Your task to perform on an android device: set the timer Image 0: 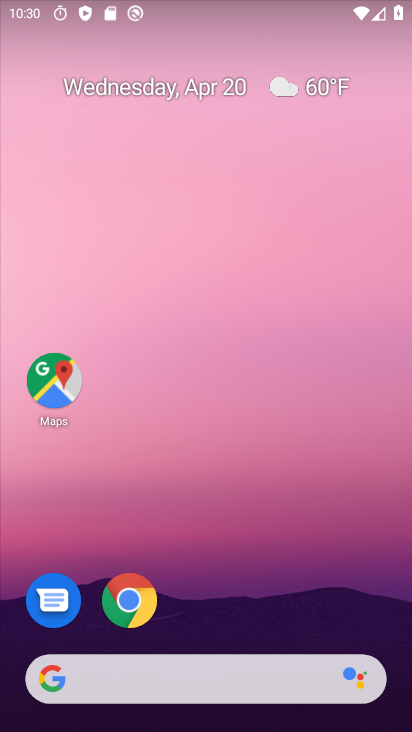
Step 0: drag from (261, 632) to (229, 108)
Your task to perform on an android device: set the timer Image 1: 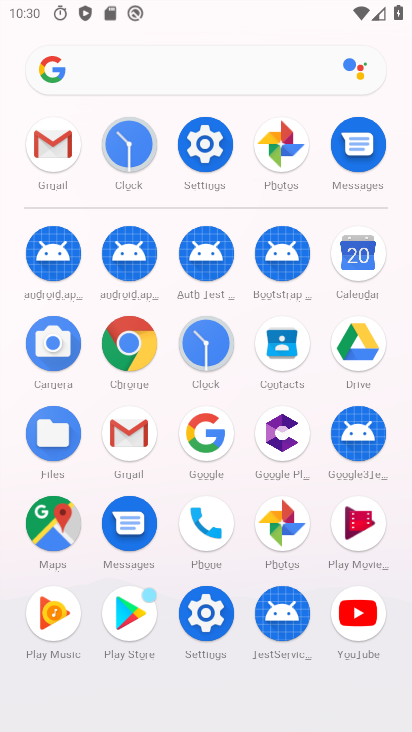
Step 1: click (204, 334)
Your task to perform on an android device: set the timer Image 2: 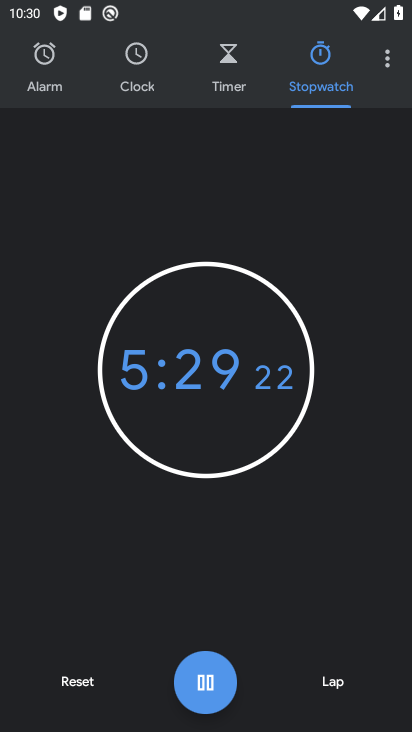
Step 2: click (235, 48)
Your task to perform on an android device: set the timer Image 3: 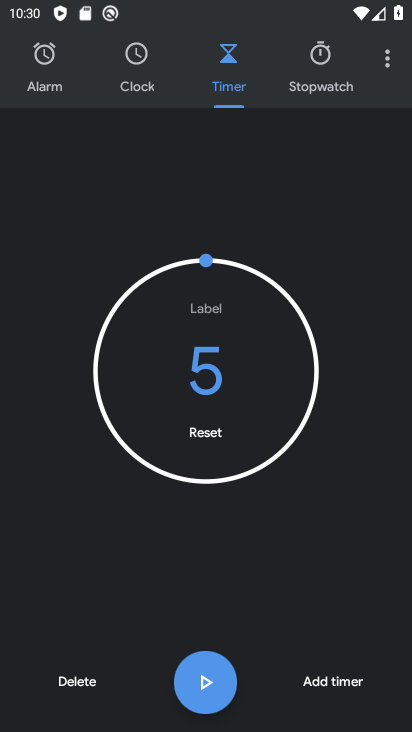
Step 3: click (224, 669)
Your task to perform on an android device: set the timer Image 4: 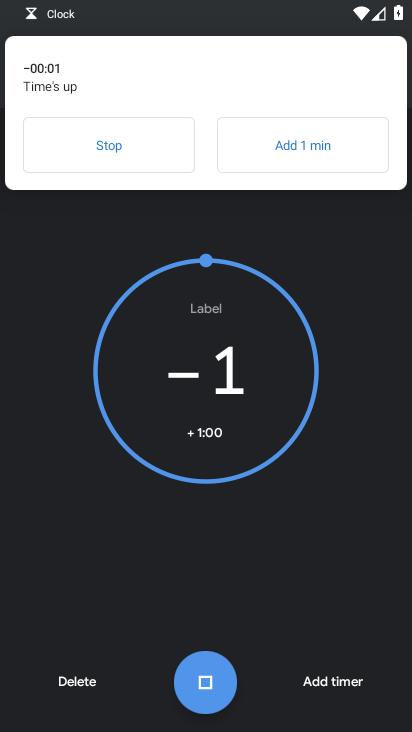
Step 4: task complete